Your task to perform on an android device: Show me popular games on the Play Store Image 0: 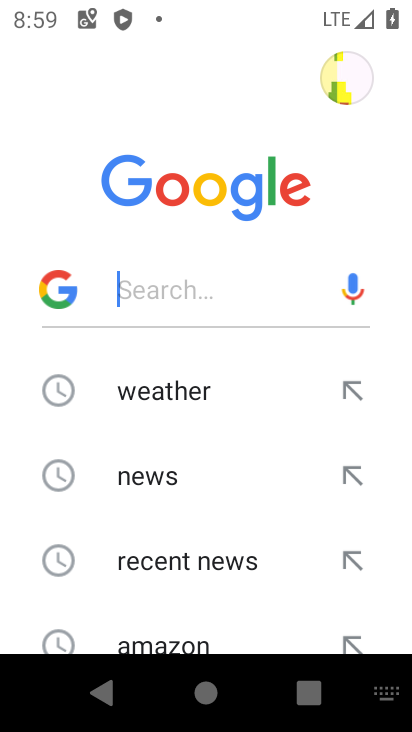
Step 0: press home button
Your task to perform on an android device: Show me popular games on the Play Store Image 1: 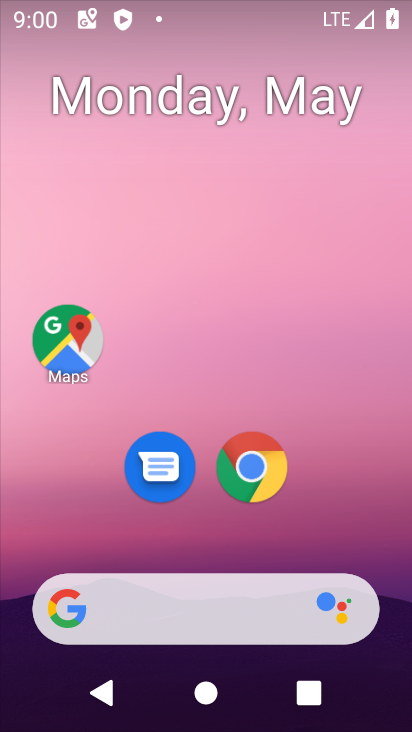
Step 1: drag from (334, 533) to (271, 47)
Your task to perform on an android device: Show me popular games on the Play Store Image 2: 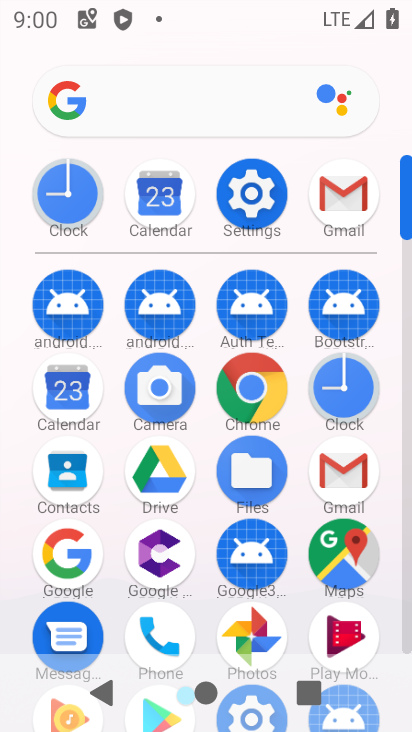
Step 2: drag from (208, 575) to (256, 152)
Your task to perform on an android device: Show me popular games on the Play Store Image 3: 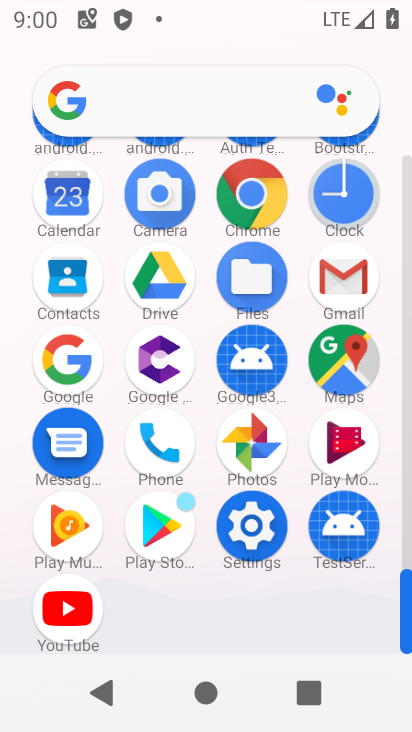
Step 3: click (176, 515)
Your task to perform on an android device: Show me popular games on the Play Store Image 4: 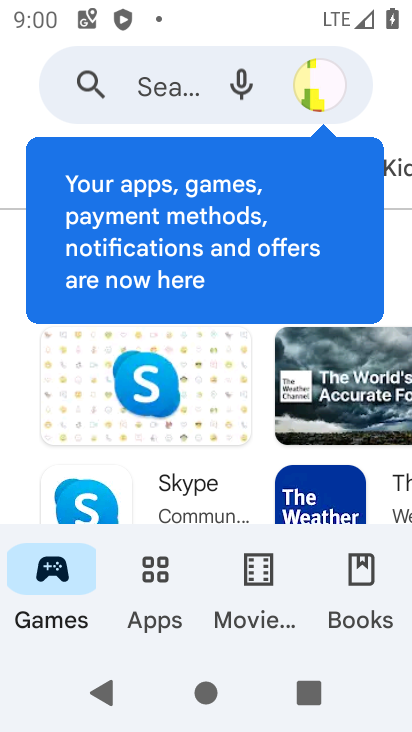
Step 4: click (12, 192)
Your task to perform on an android device: Show me popular games on the Play Store Image 5: 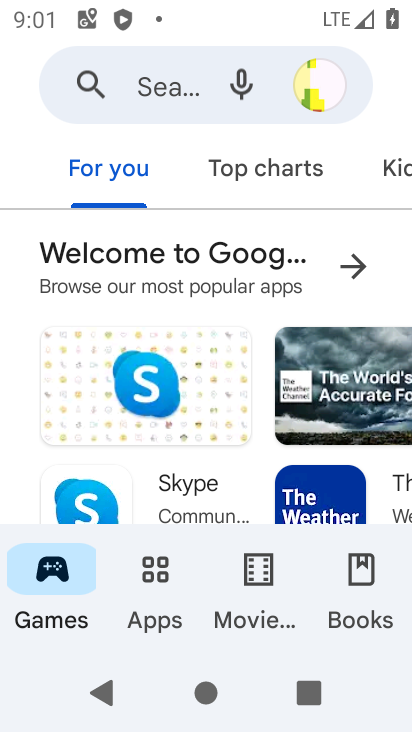
Step 5: task complete